Your task to perform on an android device: Go to location settings Image 0: 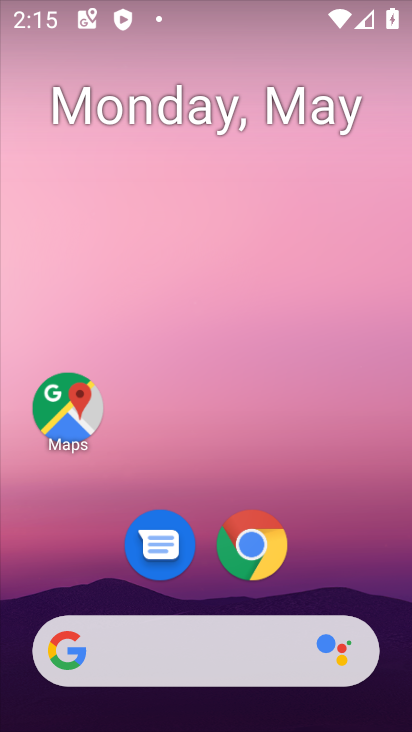
Step 0: drag from (257, 674) to (176, 13)
Your task to perform on an android device: Go to location settings Image 1: 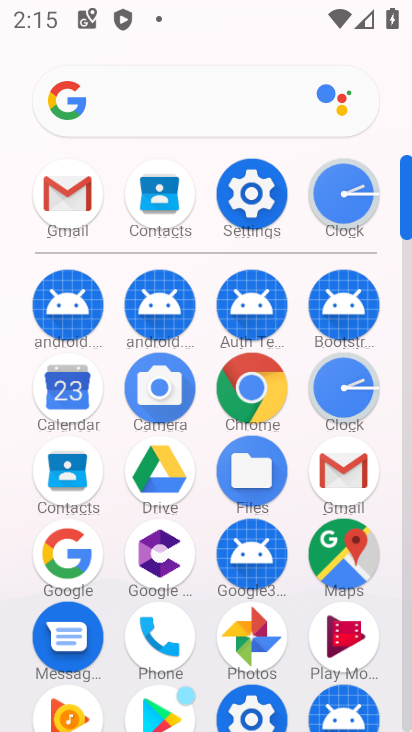
Step 1: click (257, 177)
Your task to perform on an android device: Go to location settings Image 2: 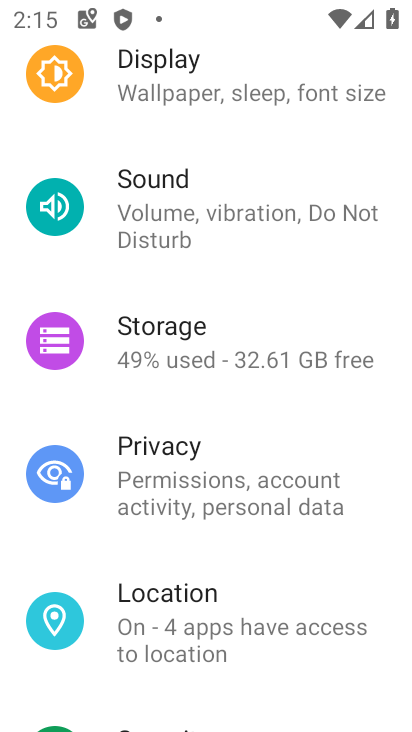
Step 2: drag from (258, 231) to (302, 523)
Your task to perform on an android device: Go to location settings Image 3: 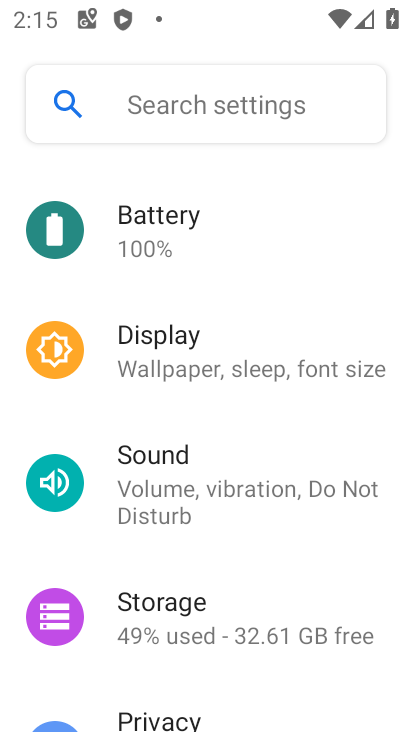
Step 3: drag from (287, 618) to (217, 117)
Your task to perform on an android device: Go to location settings Image 4: 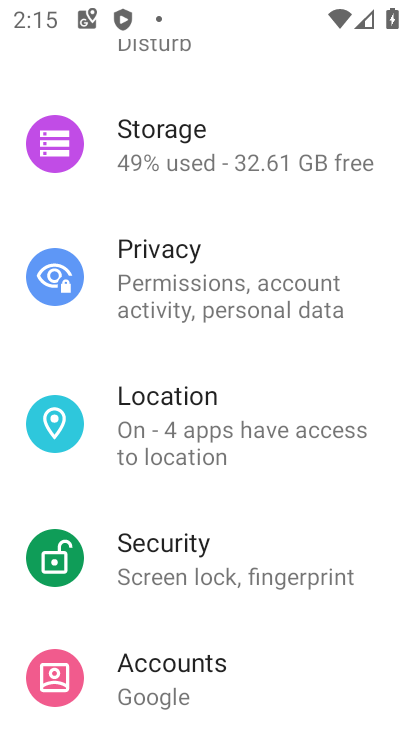
Step 4: click (254, 429)
Your task to perform on an android device: Go to location settings Image 5: 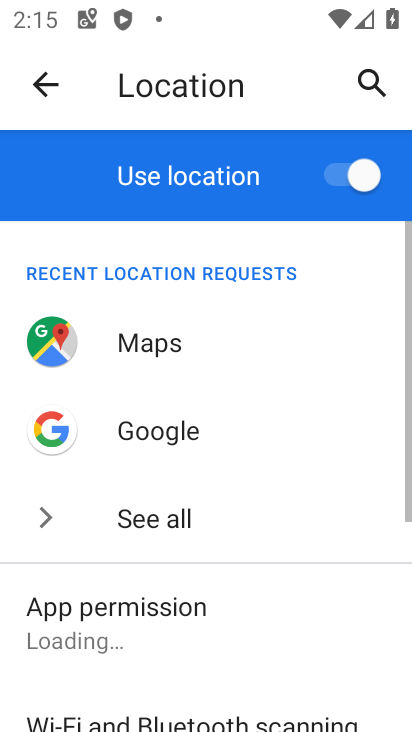
Step 5: task complete